Your task to perform on an android device: Clear the shopping cart on newegg. Image 0: 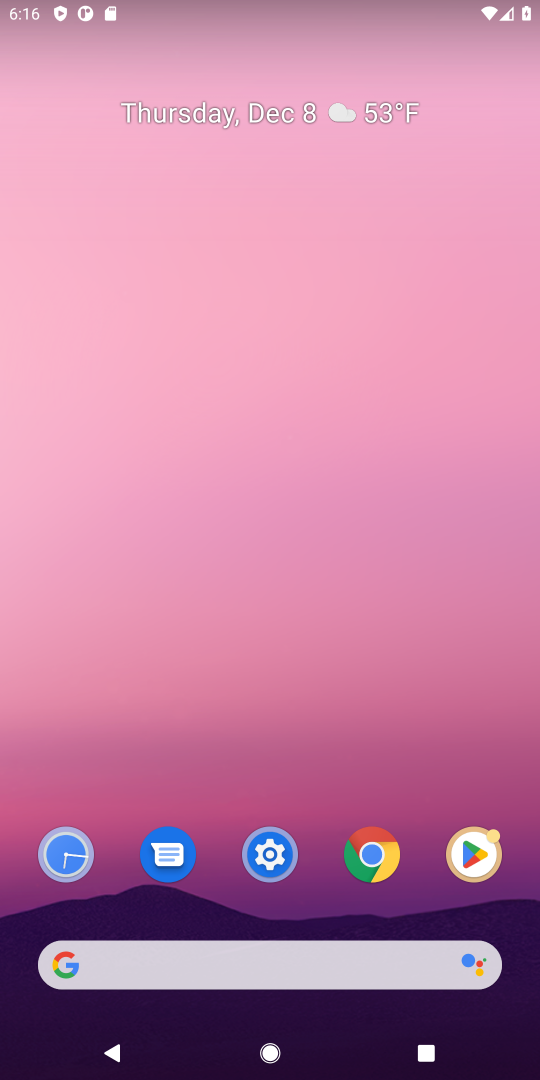
Step 0: press home button
Your task to perform on an android device: Clear the shopping cart on newegg. Image 1: 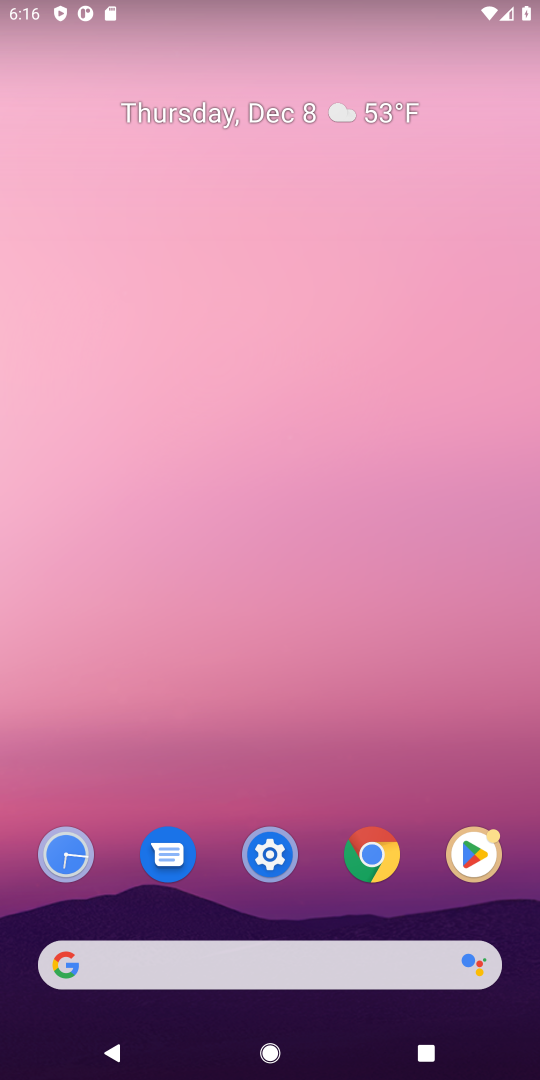
Step 1: click (125, 963)
Your task to perform on an android device: Clear the shopping cart on newegg. Image 2: 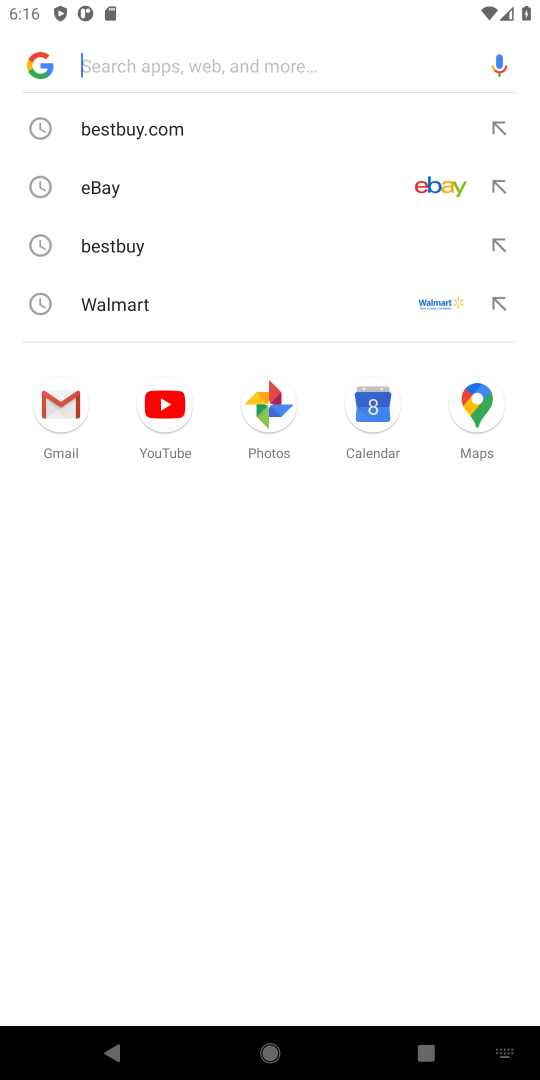
Step 2: type "newegg"
Your task to perform on an android device: Clear the shopping cart on newegg. Image 3: 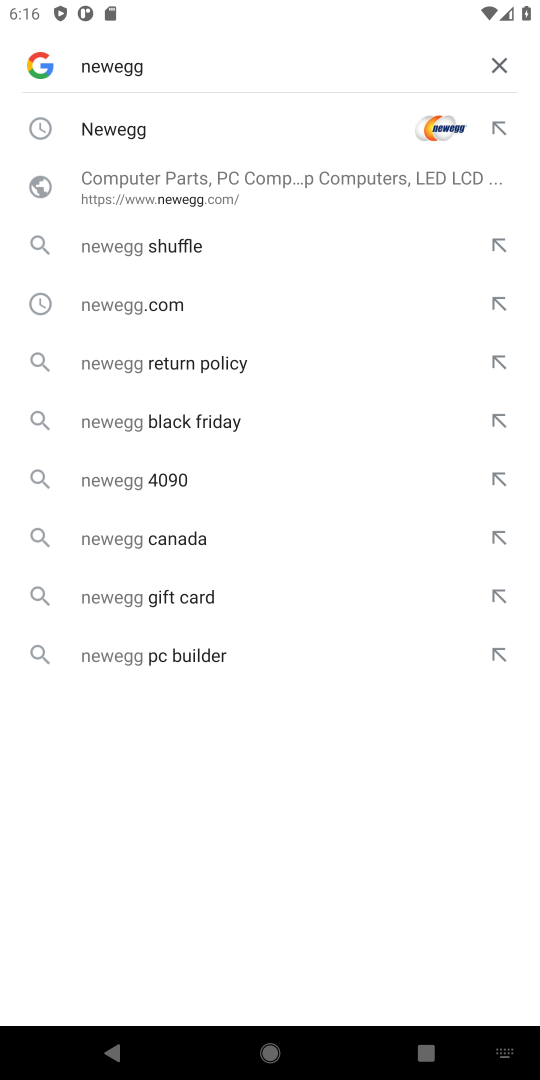
Step 3: press enter
Your task to perform on an android device: Clear the shopping cart on newegg. Image 4: 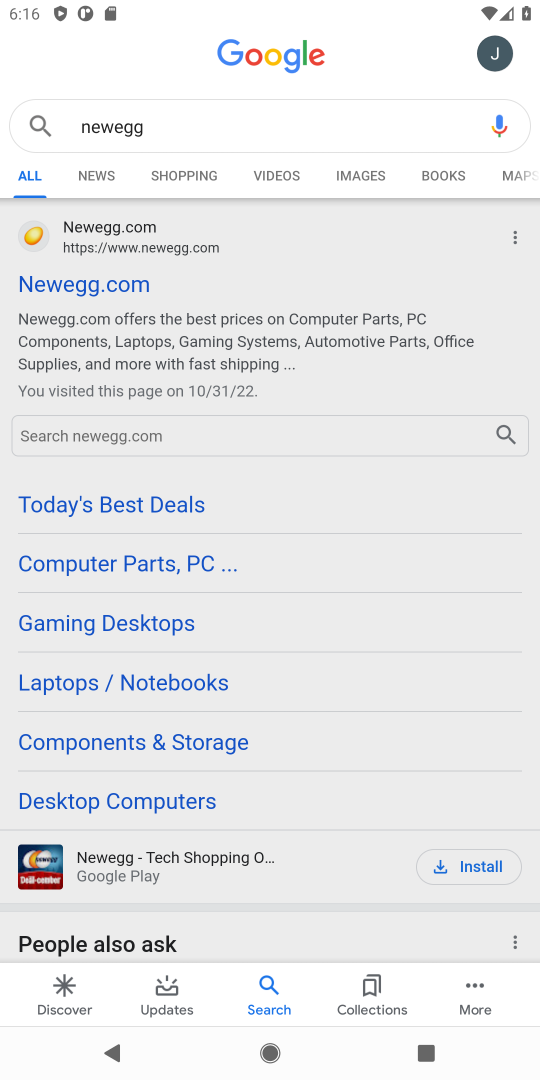
Step 4: click (76, 280)
Your task to perform on an android device: Clear the shopping cart on newegg. Image 5: 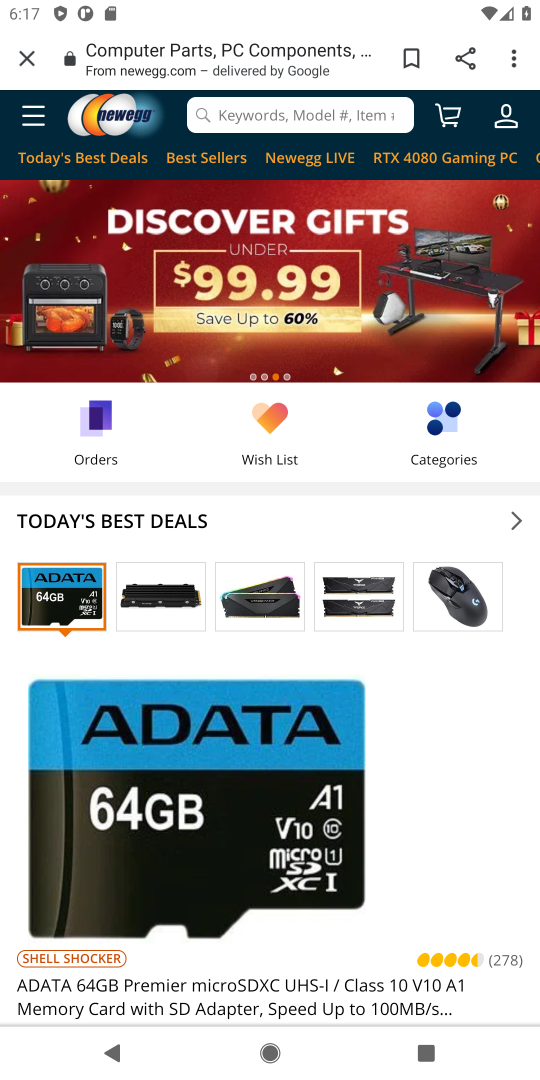
Step 5: click (447, 118)
Your task to perform on an android device: Clear the shopping cart on newegg. Image 6: 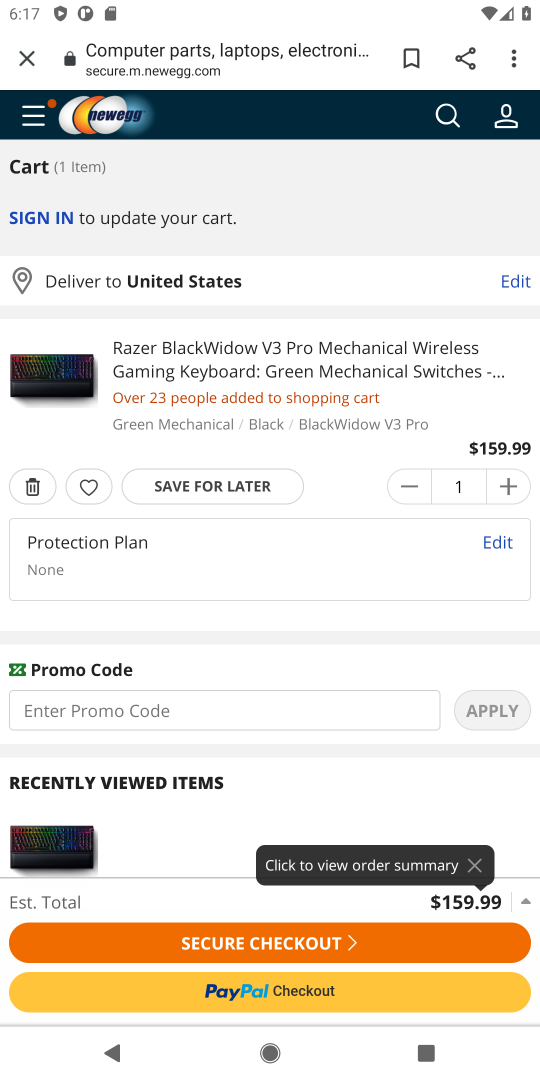
Step 6: click (26, 490)
Your task to perform on an android device: Clear the shopping cart on newegg. Image 7: 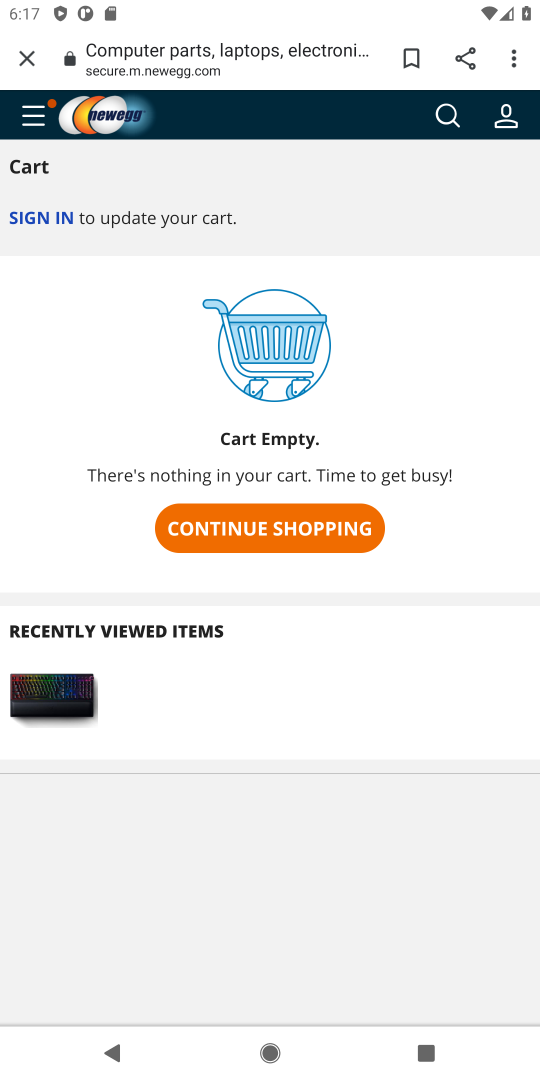
Step 7: task complete